Your task to perform on an android device: toggle improve location accuracy Image 0: 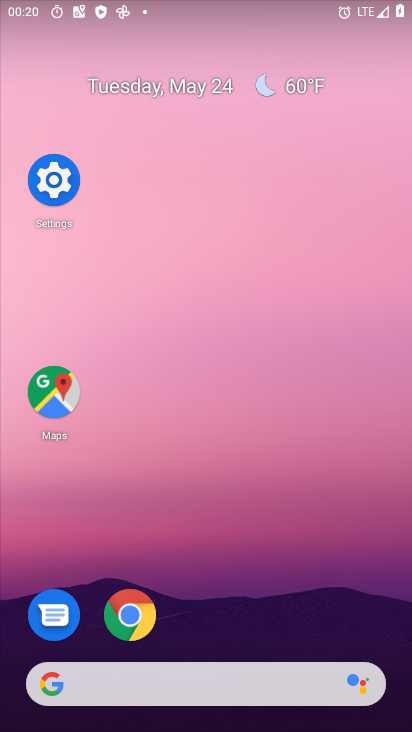
Step 0: drag from (193, 601) to (215, 101)
Your task to perform on an android device: toggle improve location accuracy Image 1: 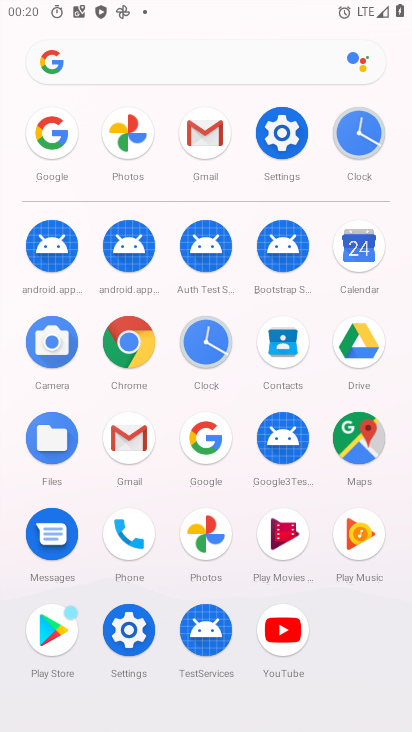
Step 1: click (287, 131)
Your task to perform on an android device: toggle improve location accuracy Image 2: 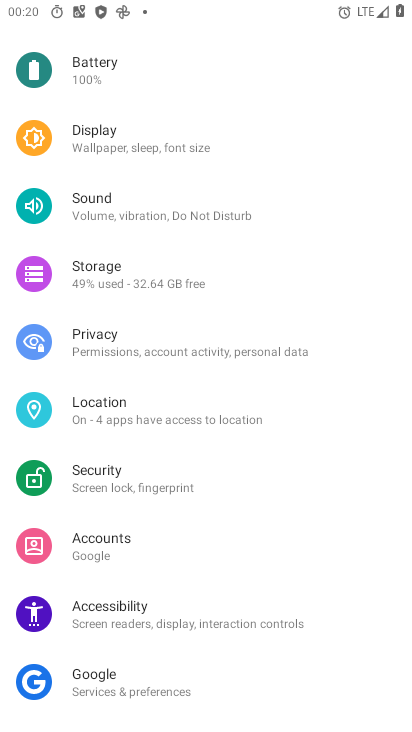
Step 2: click (116, 412)
Your task to perform on an android device: toggle improve location accuracy Image 3: 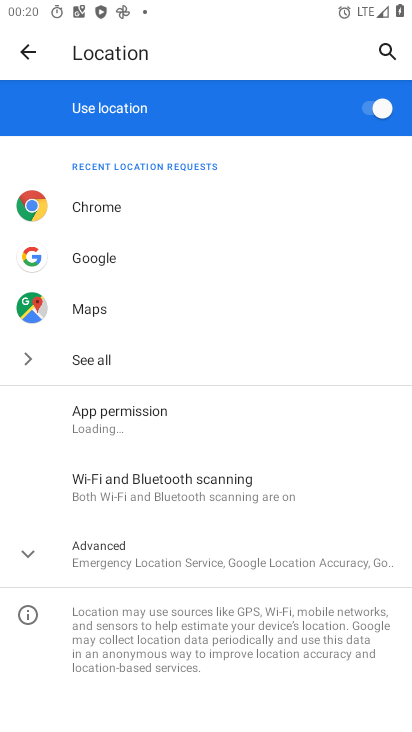
Step 3: click (108, 531)
Your task to perform on an android device: toggle improve location accuracy Image 4: 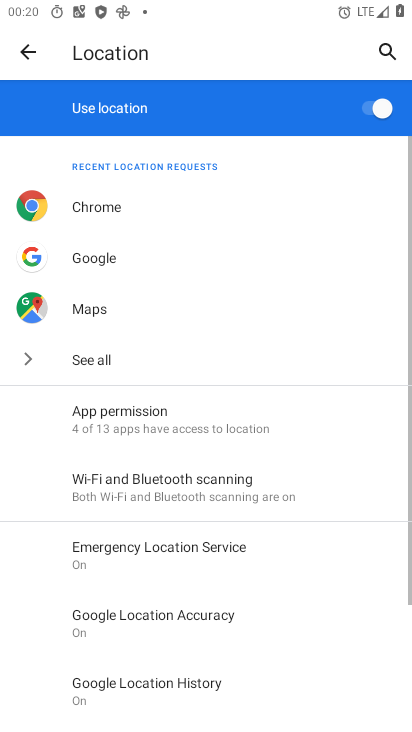
Step 4: drag from (202, 510) to (173, 217)
Your task to perform on an android device: toggle improve location accuracy Image 5: 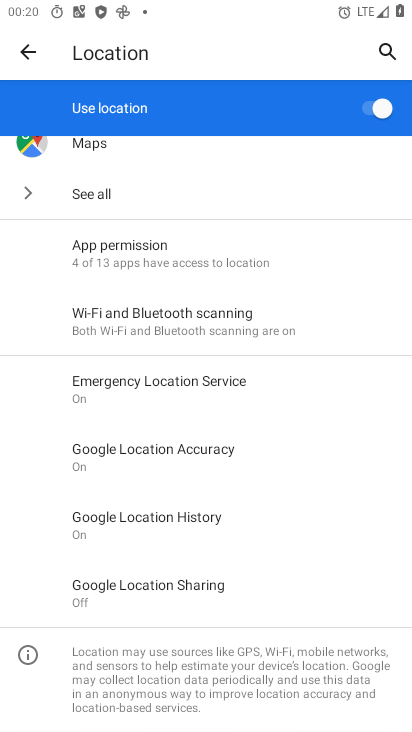
Step 5: click (134, 449)
Your task to perform on an android device: toggle improve location accuracy Image 6: 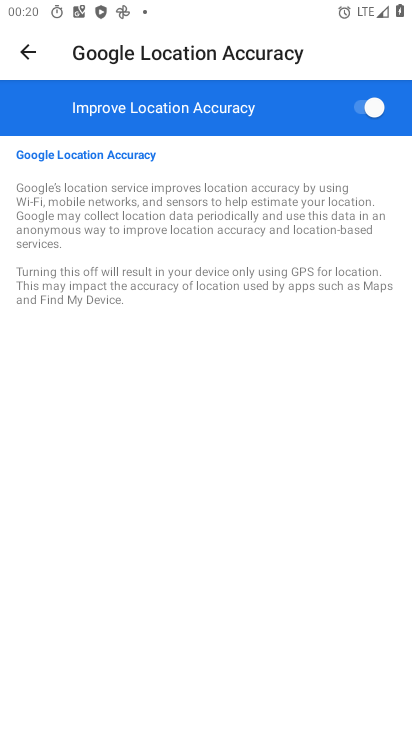
Step 6: click (374, 114)
Your task to perform on an android device: toggle improve location accuracy Image 7: 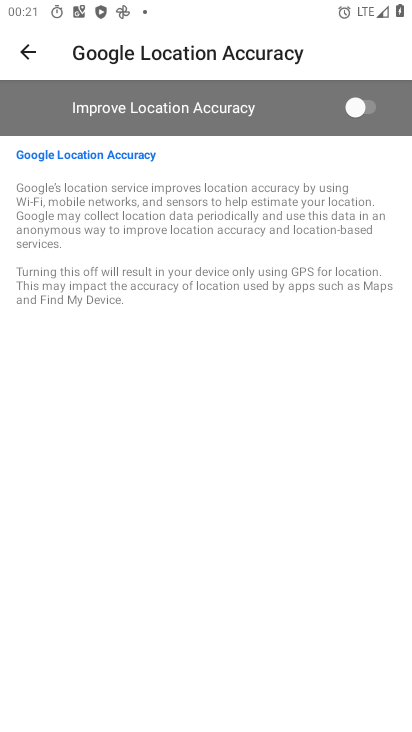
Step 7: task complete